Your task to perform on an android device: Go to settings Image 0: 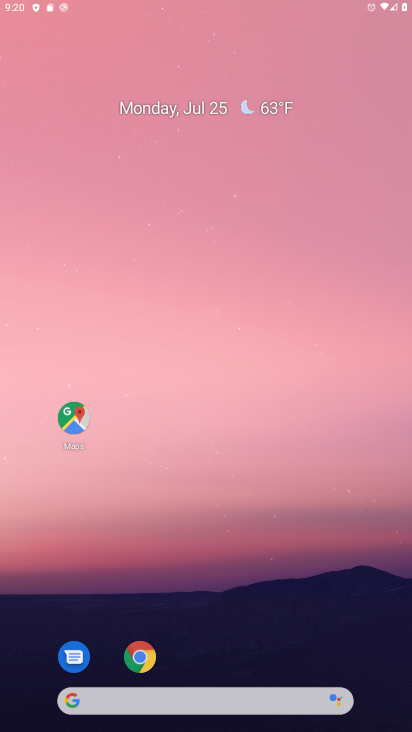
Step 0: drag from (194, 51) to (204, 127)
Your task to perform on an android device: Go to settings Image 1: 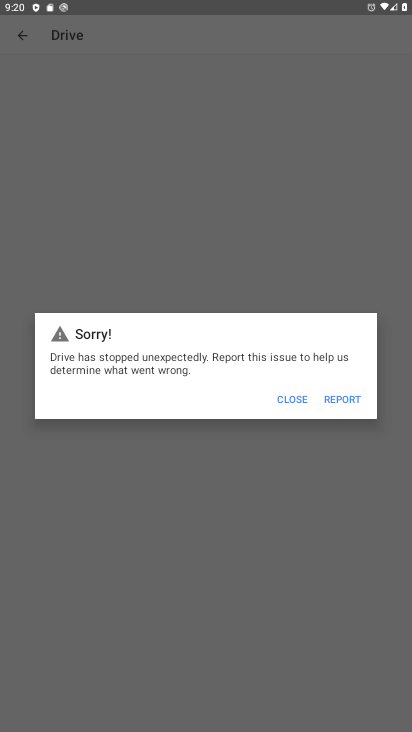
Step 1: press home button
Your task to perform on an android device: Go to settings Image 2: 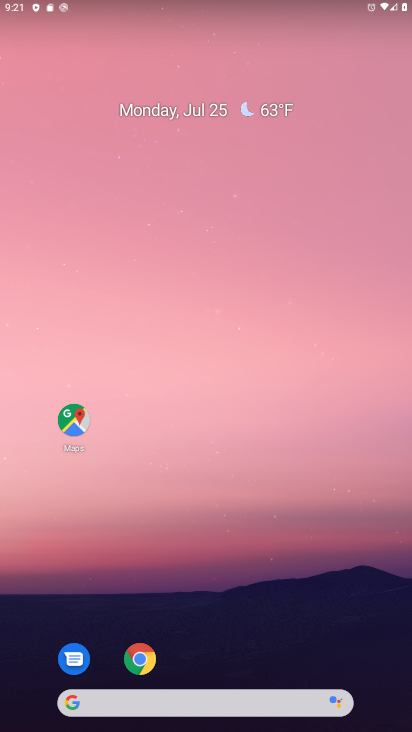
Step 2: drag from (225, 726) to (215, 105)
Your task to perform on an android device: Go to settings Image 3: 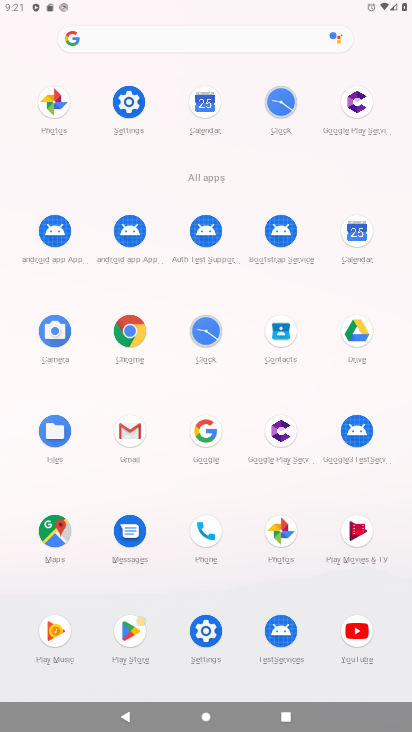
Step 3: click (129, 102)
Your task to perform on an android device: Go to settings Image 4: 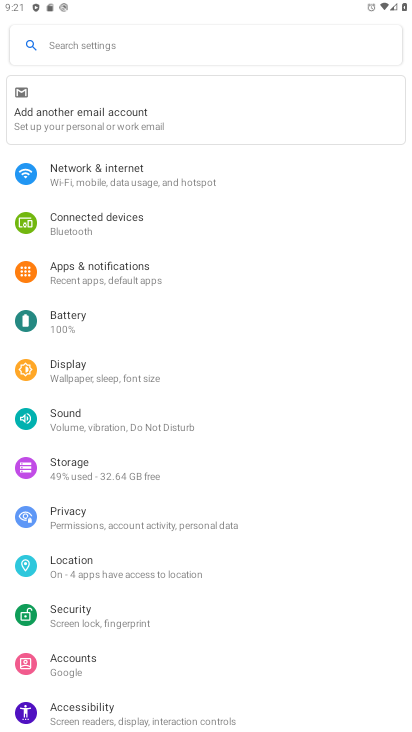
Step 4: task complete